Your task to perform on an android device: Open Yahoo.com Image 0: 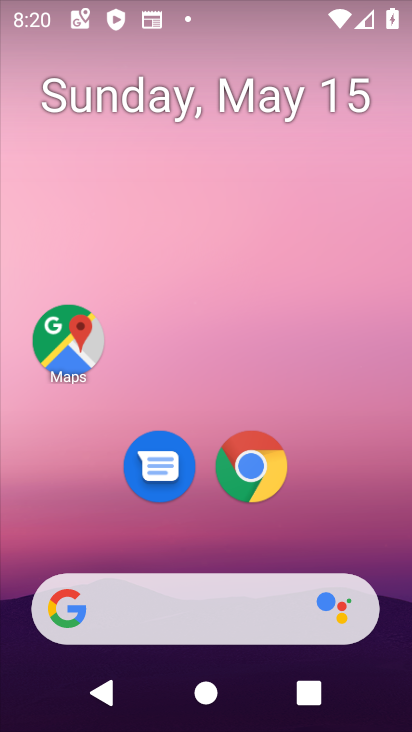
Step 0: click (264, 466)
Your task to perform on an android device: Open Yahoo.com Image 1: 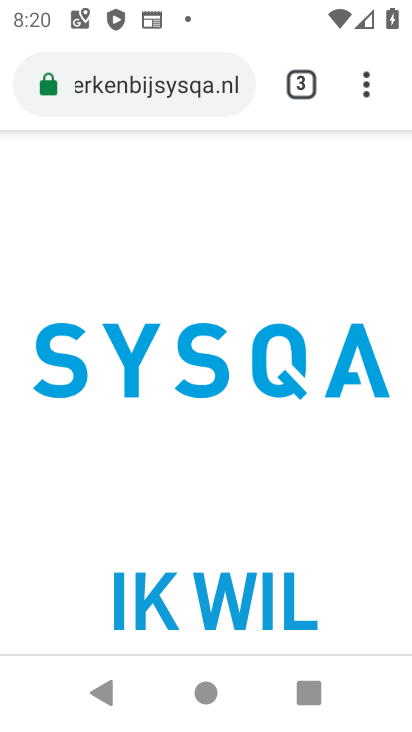
Step 1: click (295, 86)
Your task to perform on an android device: Open Yahoo.com Image 2: 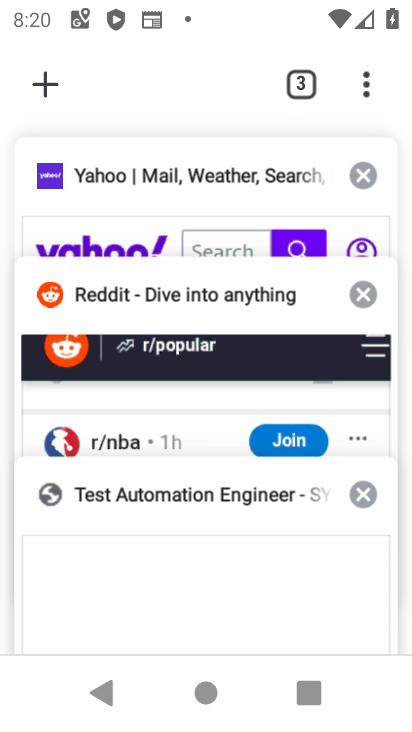
Step 2: click (266, 231)
Your task to perform on an android device: Open Yahoo.com Image 3: 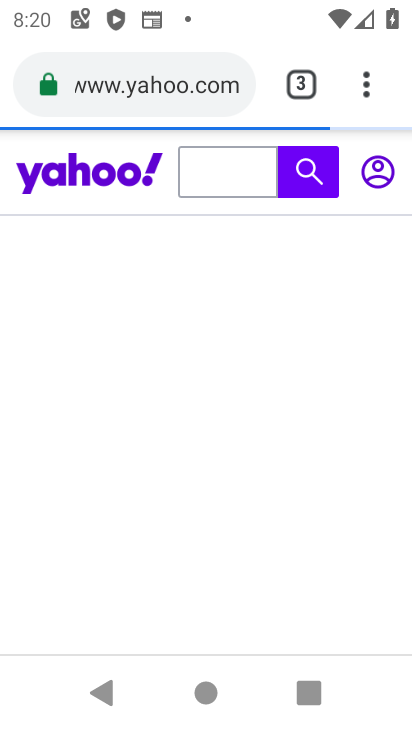
Step 3: task complete